Your task to perform on an android device: change notification settings in the gmail app Image 0: 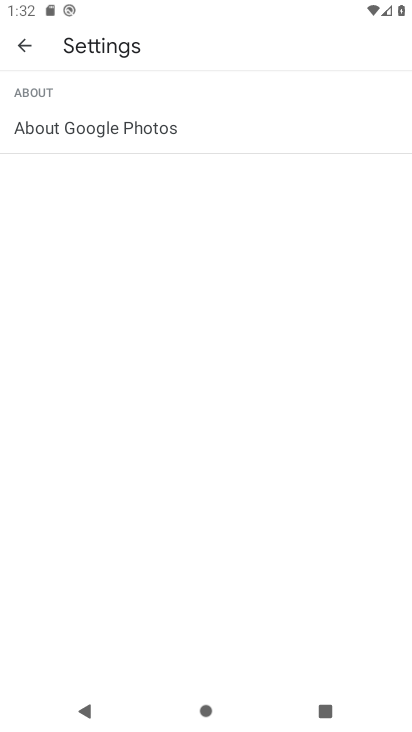
Step 0: press home button
Your task to perform on an android device: change notification settings in the gmail app Image 1: 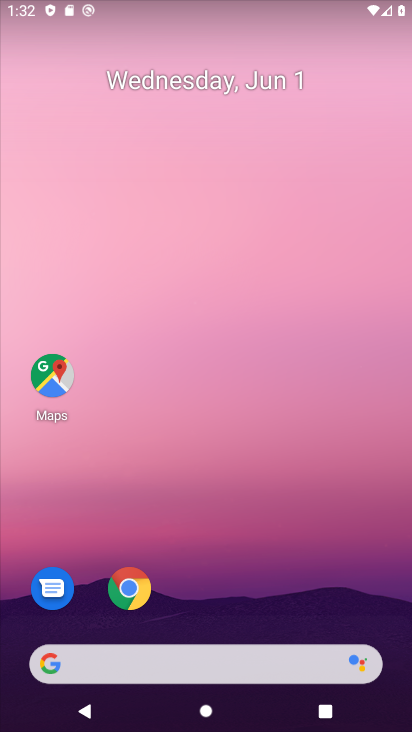
Step 1: drag from (212, 628) to (317, 116)
Your task to perform on an android device: change notification settings in the gmail app Image 2: 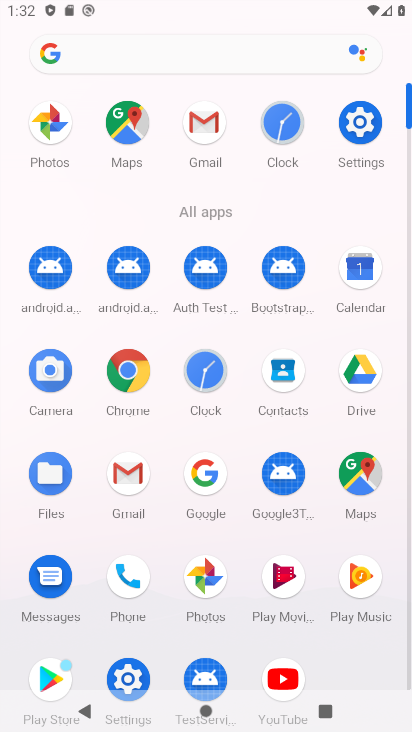
Step 2: drag from (186, 651) to (264, 392)
Your task to perform on an android device: change notification settings in the gmail app Image 3: 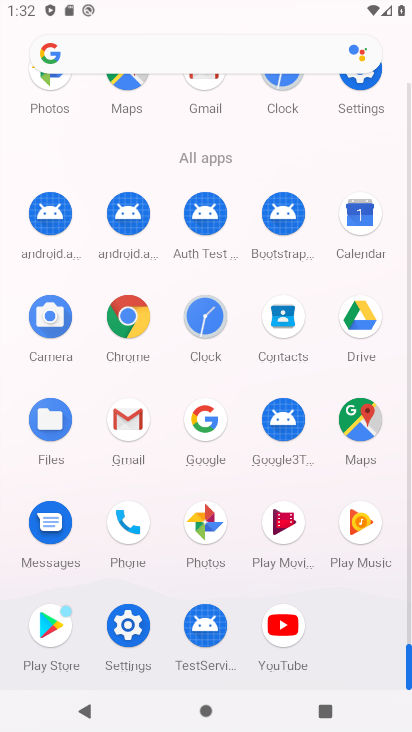
Step 3: click (140, 428)
Your task to perform on an android device: change notification settings in the gmail app Image 4: 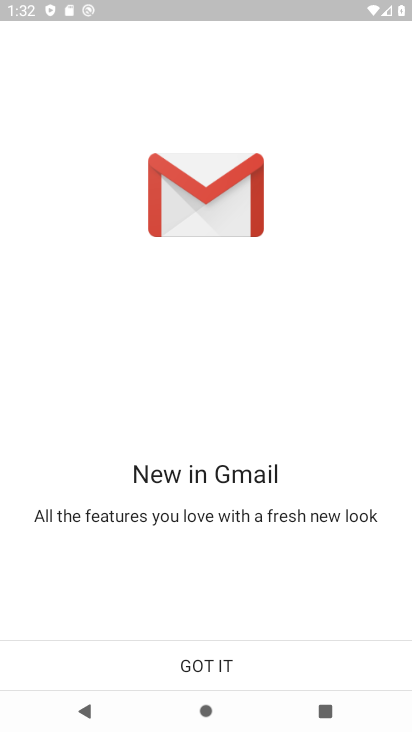
Step 4: click (249, 676)
Your task to perform on an android device: change notification settings in the gmail app Image 5: 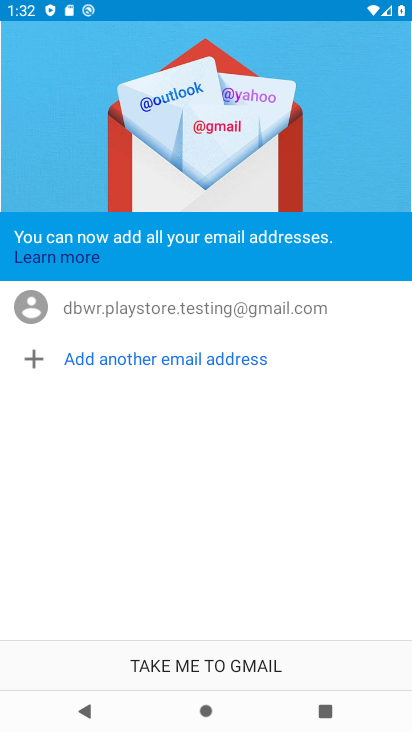
Step 5: click (257, 674)
Your task to perform on an android device: change notification settings in the gmail app Image 6: 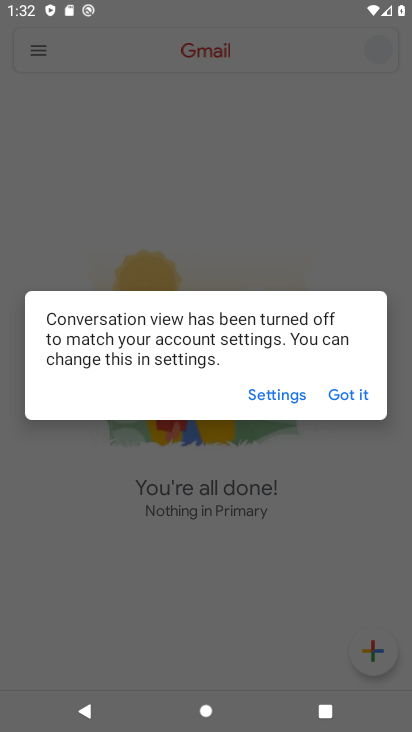
Step 6: click (345, 381)
Your task to perform on an android device: change notification settings in the gmail app Image 7: 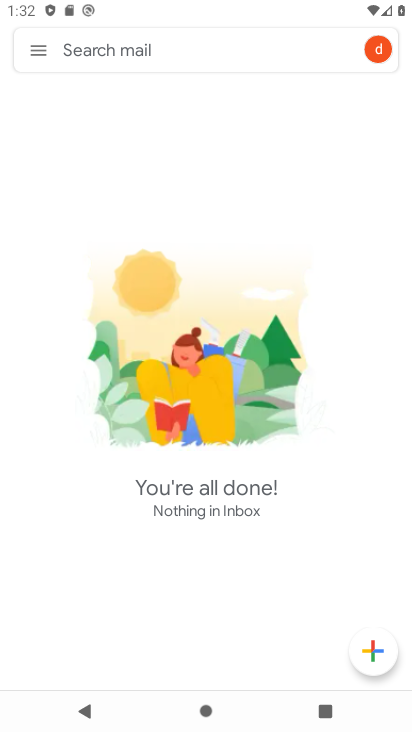
Step 7: click (46, 66)
Your task to perform on an android device: change notification settings in the gmail app Image 8: 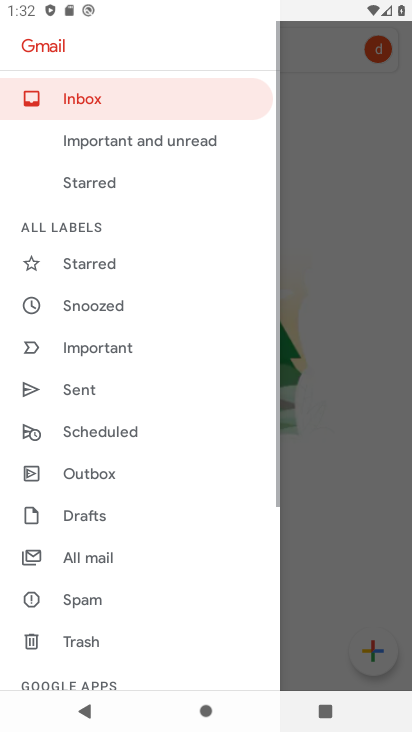
Step 8: drag from (119, 630) to (247, 199)
Your task to perform on an android device: change notification settings in the gmail app Image 9: 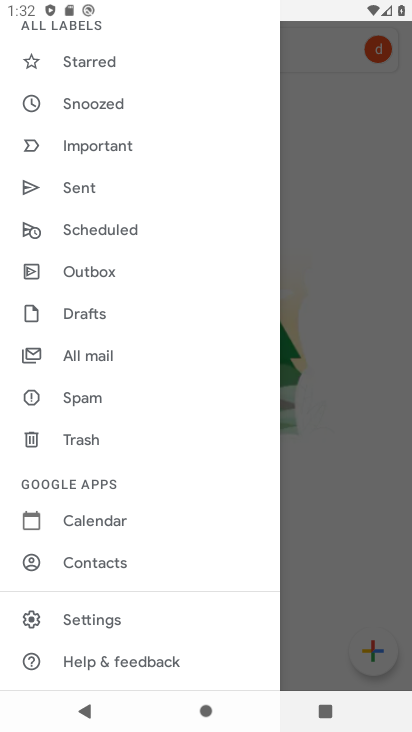
Step 9: click (125, 625)
Your task to perform on an android device: change notification settings in the gmail app Image 10: 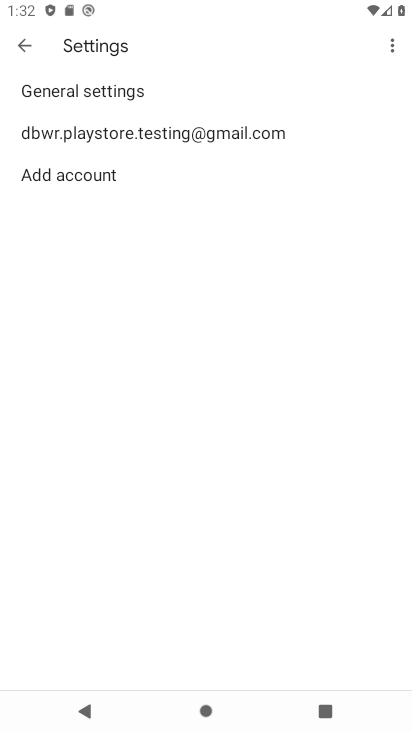
Step 10: click (279, 137)
Your task to perform on an android device: change notification settings in the gmail app Image 11: 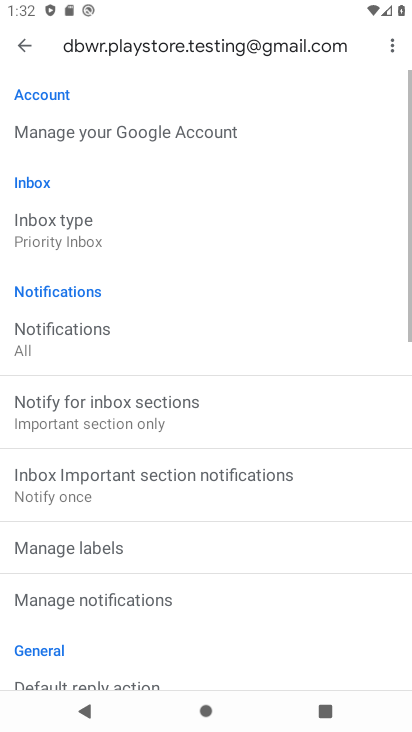
Step 11: drag from (150, 610) to (253, 331)
Your task to perform on an android device: change notification settings in the gmail app Image 12: 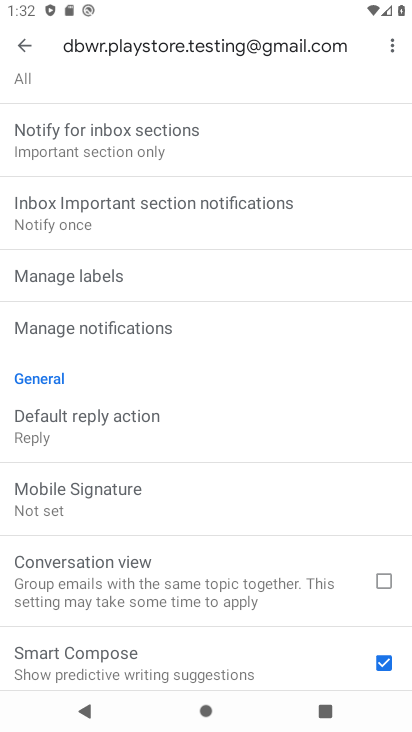
Step 12: click (190, 325)
Your task to perform on an android device: change notification settings in the gmail app Image 13: 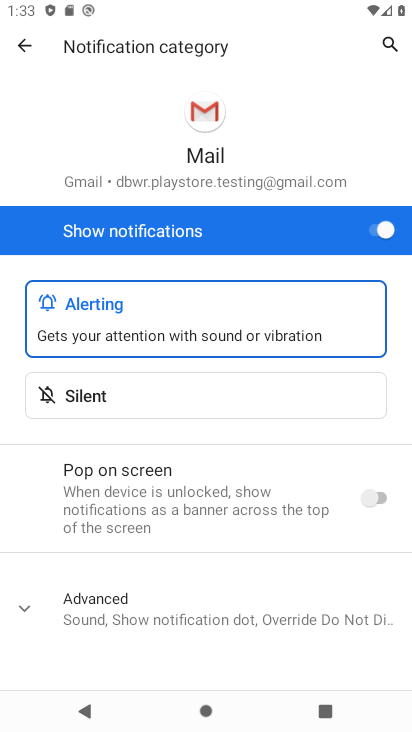
Step 13: click (214, 423)
Your task to perform on an android device: change notification settings in the gmail app Image 14: 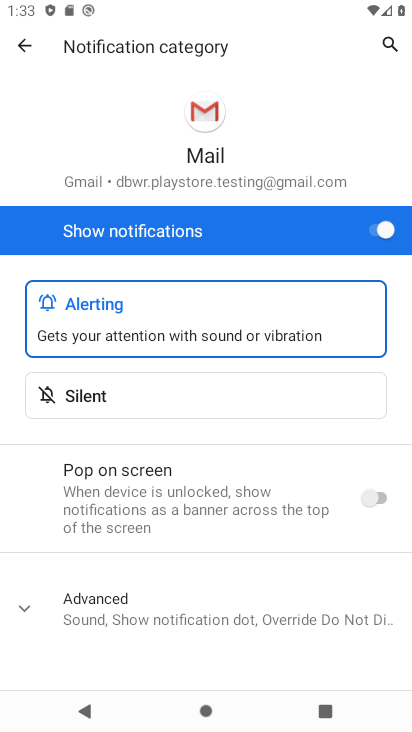
Step 14: click (213, 407)
Your task to perform on an android device: change notification settings in the gmail app Image 15: 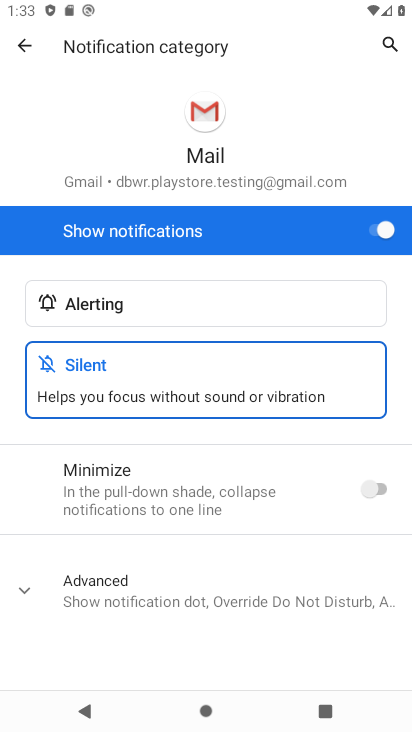
Step 15: click (388, 486)
Your task to perform on an android device: change notification settings in the gmail app Image 16: 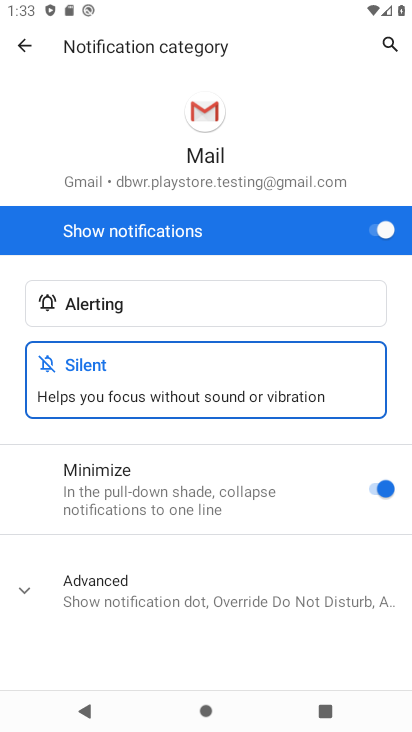
Step 16: click (286, 617)
Your task to perform on an android device: change notification settings in the gmail app Image 17: 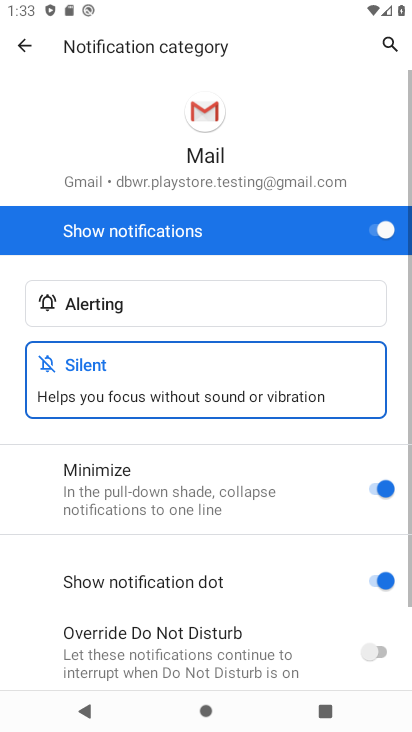
Step 17: drag from (281, 615) to (336, 278)
Your task to perform on an android device: change notification settings in the gmail app Image 18: 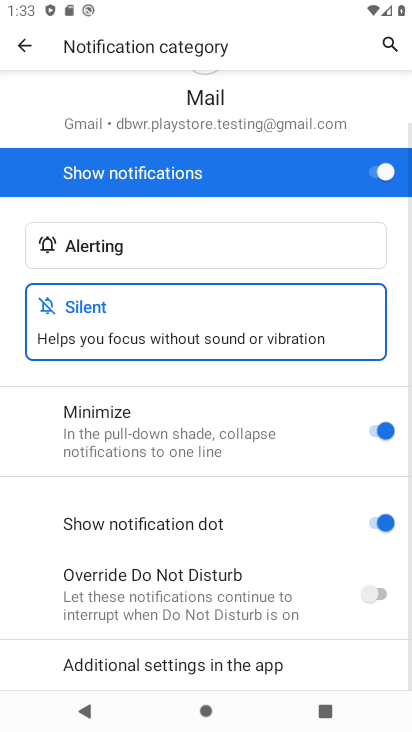
Step 18: click (374, 593)
Your task to perform on an android device: change notification settings in the gmail app Image 19: 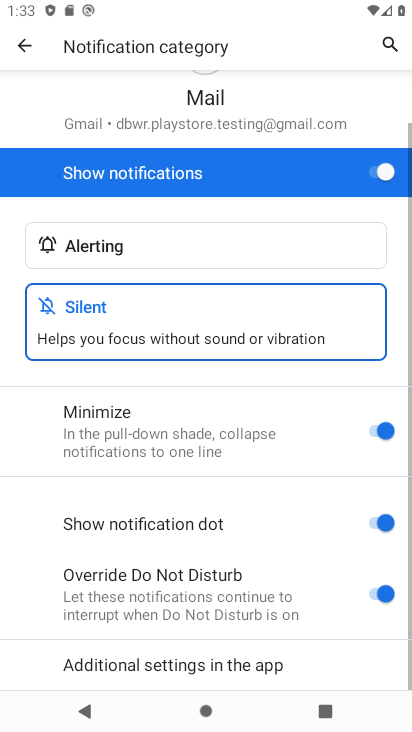
Step 19: click (379, 539)
Your task to perform on an android device: change notification settings in the gmail app Image 20: 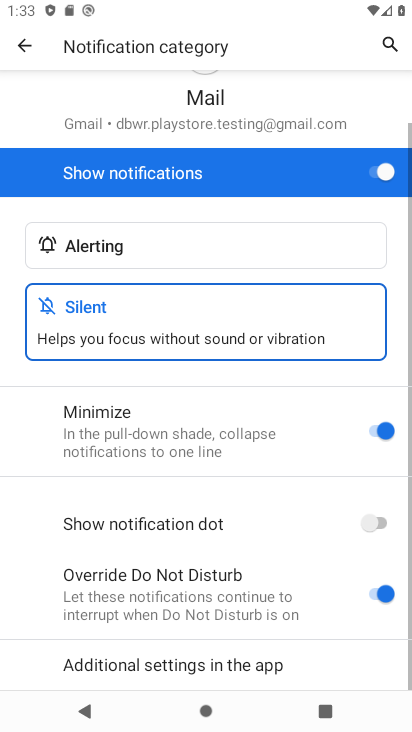
Step 20: task complete